Your task to perform on an android device: Turn off the flashlight Image 0: 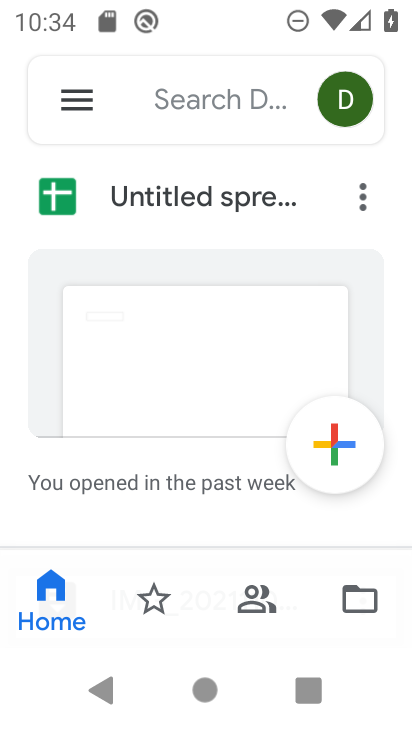
Step 0: drag from (246, 0) to (223, 418)
Your task to perform on an android device: Turn off the flashlight Image 1: 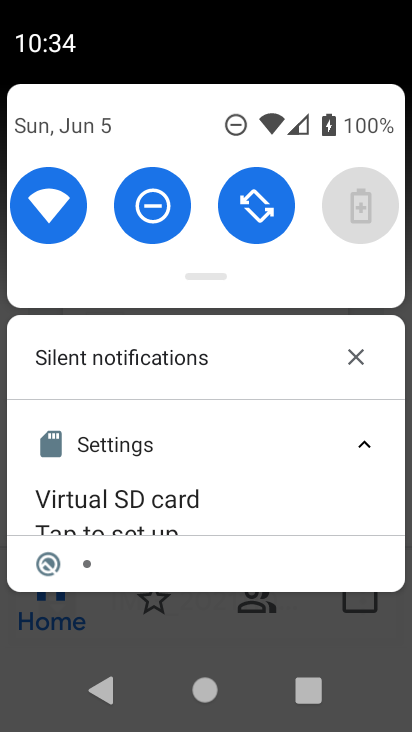
Step 1: task complete